Your task to perform on an android device: Play the last video I watched on Youtube Image 0: 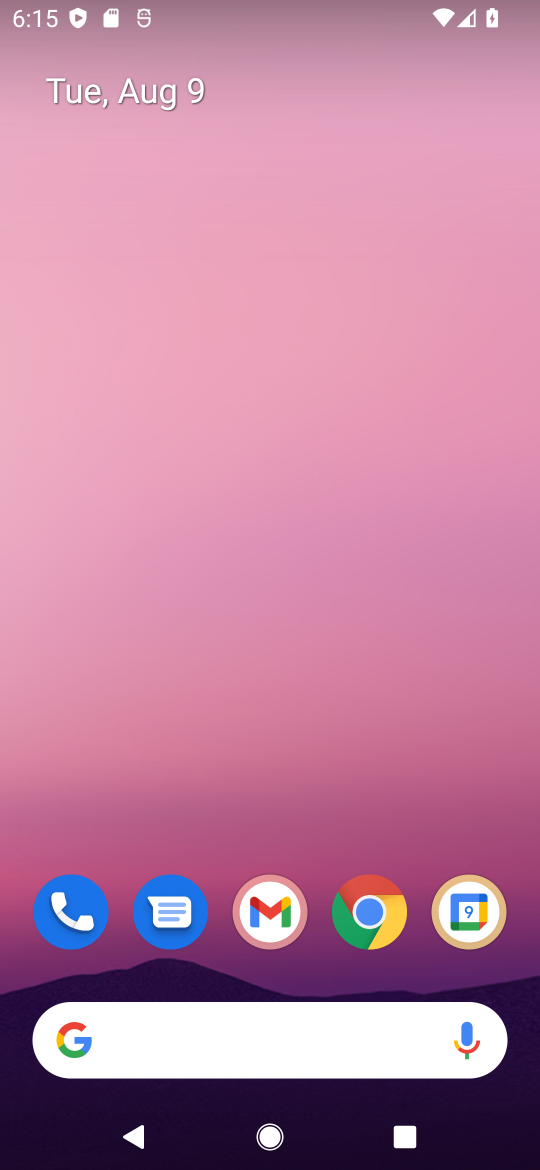
Step 0: press home button
Your task to perform on an android device: Play the last video I watched on Youtube Image 1: 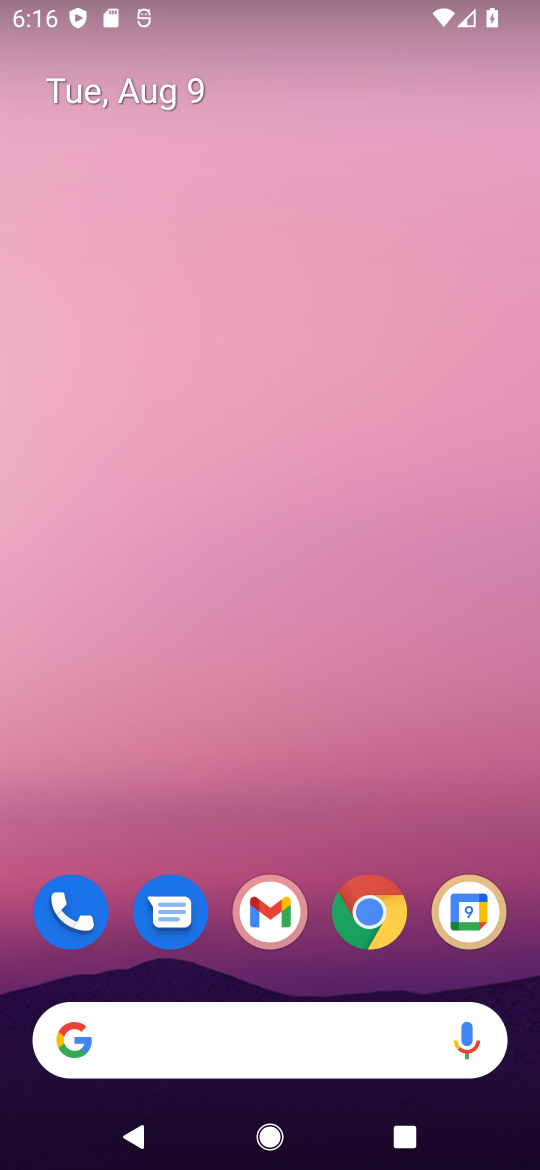
Step 1: drag from (343, 786) to (360, 156)
Your task to perform on an android device: Play the last video I watched on Youtube Image 2: 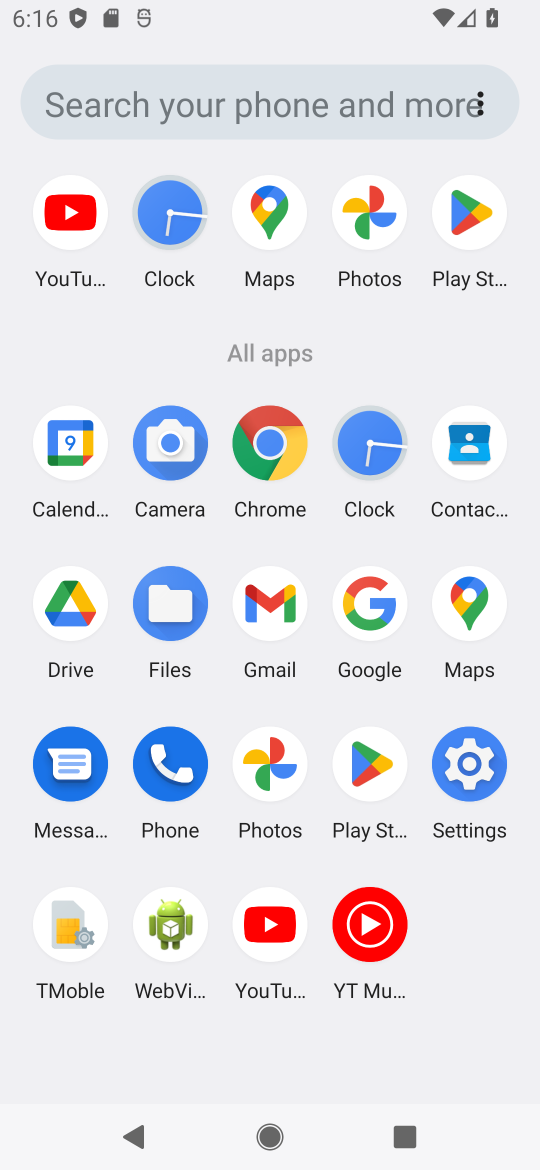
Step 2: click (262, 924)
Your task to perform on an android device: Play the last video I watched on Youtube Image 3: 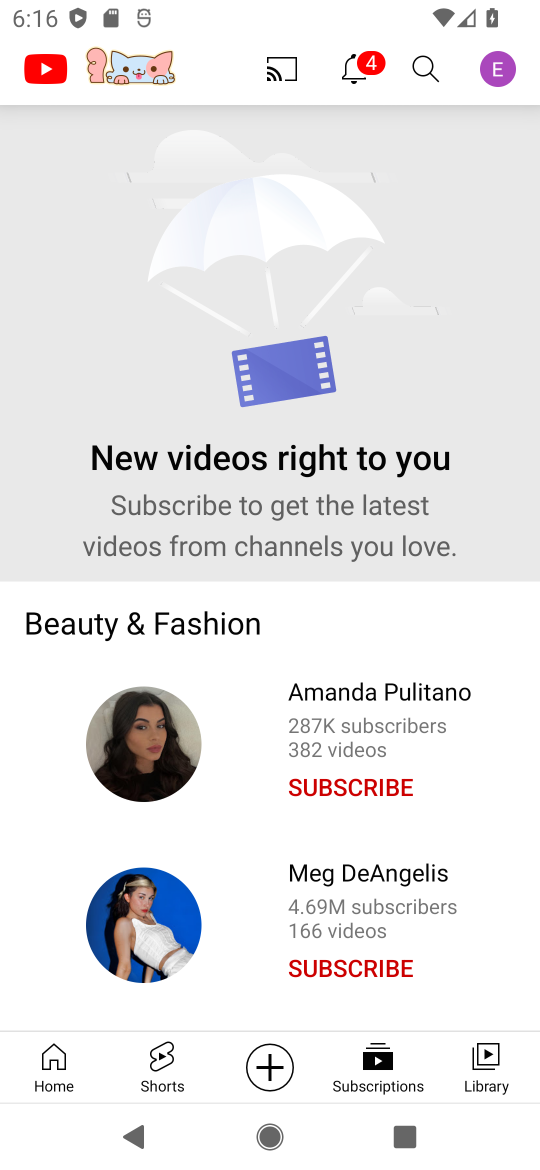
Step 3: click (493, 1057)
Your task to perform on an android device: Play the last video I watched on Youtube Image 4: 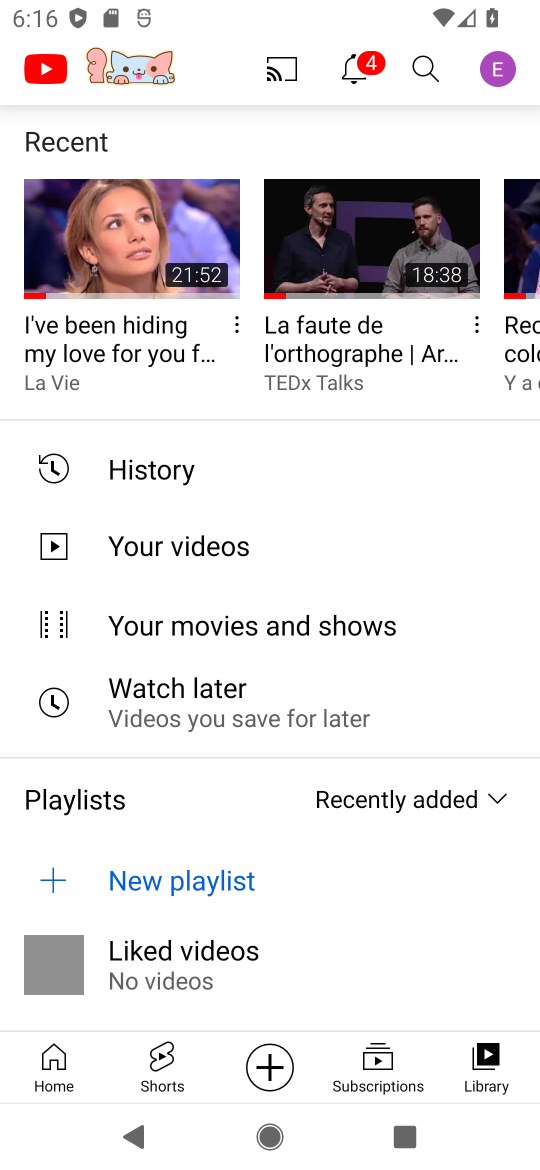
Step 4: click (175, 464)
Your task to perform on an android device: Play the last video I watched on Youtube Image 5: 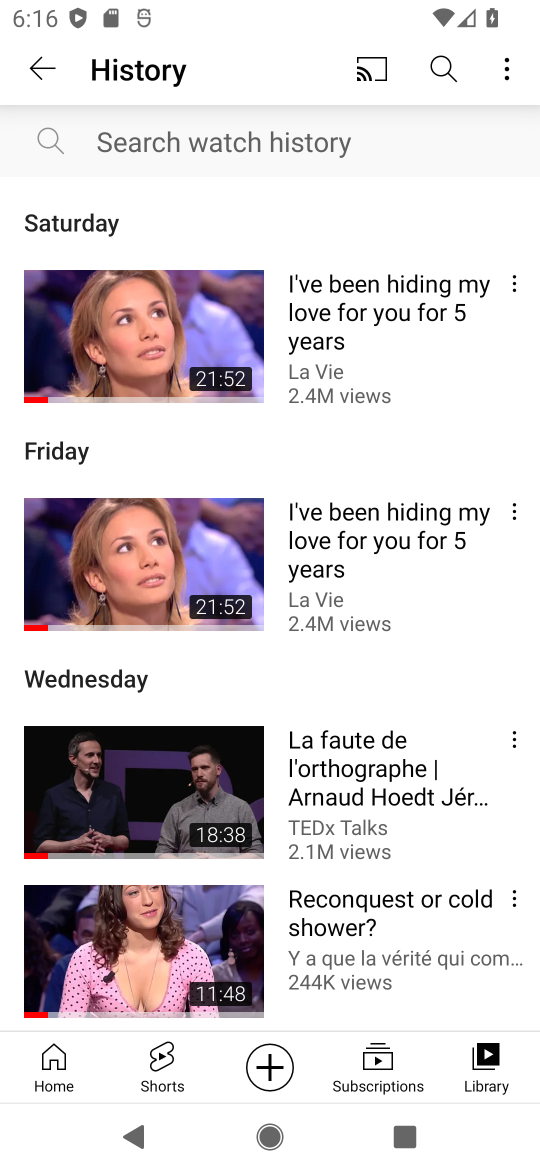
Step 5: click (110, 299)
Your task to perform on an android device: Play the last video I watched on Youtube Image 6: 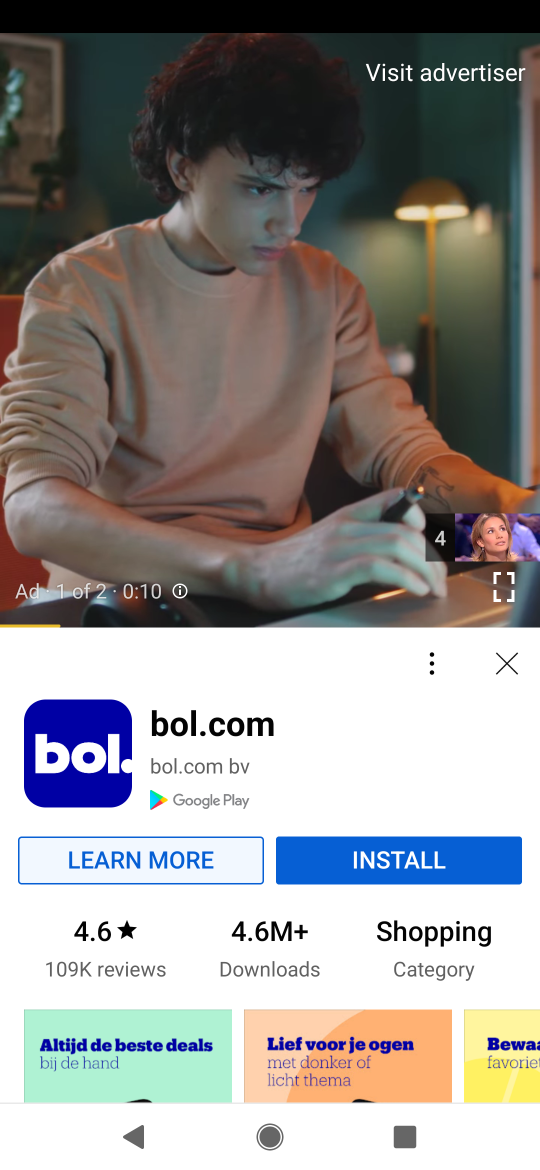
Step 6: task complete